Your task to perform on an android device: Open calendar and show me the fourth week of next month Image 0: 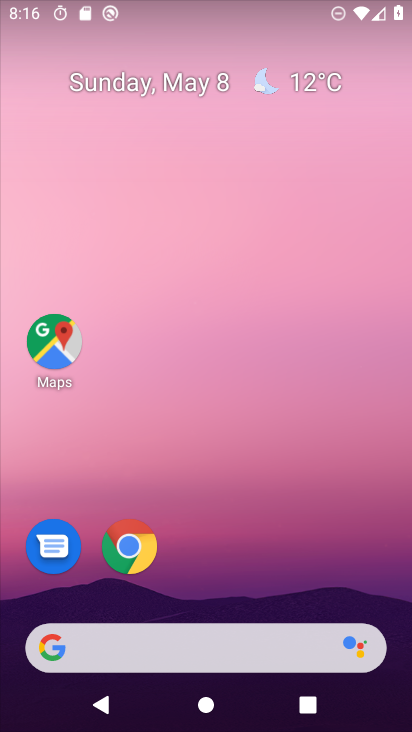
Step 0: drag from (259, 523) to (202, 4)
Your task to perform on an android device: Open calendar and show me the fourth week of next month Image 1: 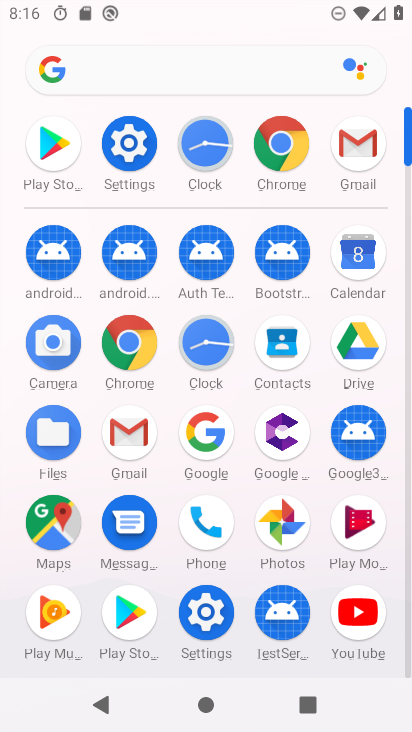
Step 1: click (349, 262)
Your task to perform on an android device: Open calendar and show me the fourth week of next month Image 2: 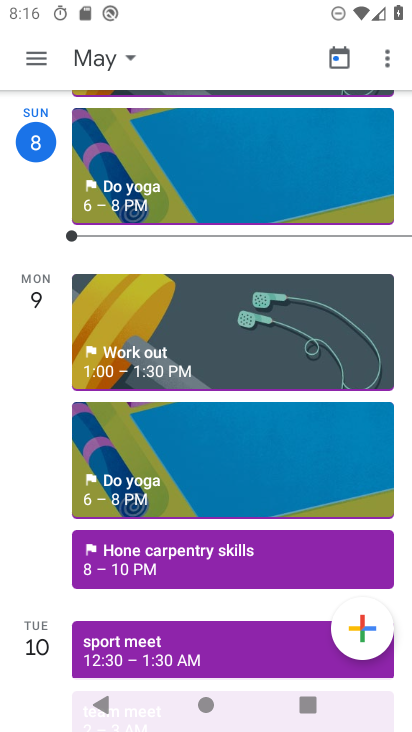
Step 2: click (39, 55)
Your task to perform on an android device: Open calendar and show me the fourth week of next month Image 3: 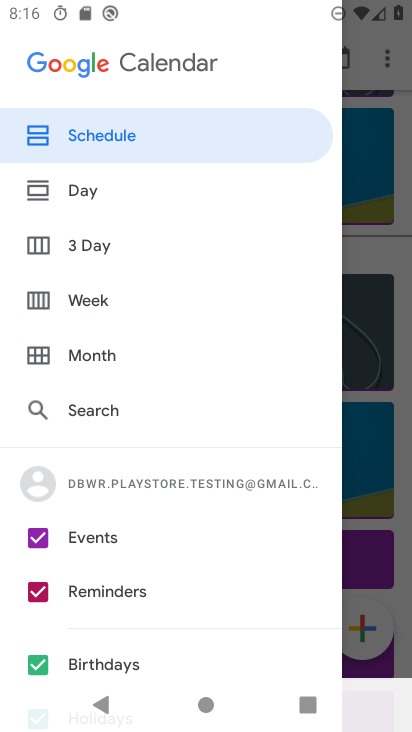
Step 3: click (35, 294)
Your task to perform on an android device: Open calendar and show me the fourth week of next month Image 4: 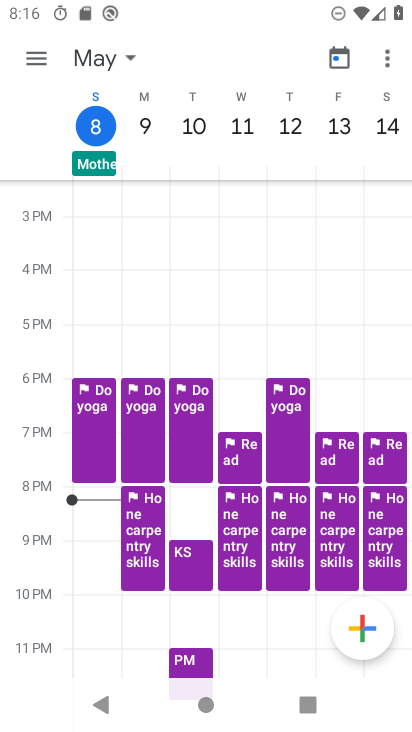
Step 4: task complete